Your task to perform on an android device: Go to accessibility settings Image 0: 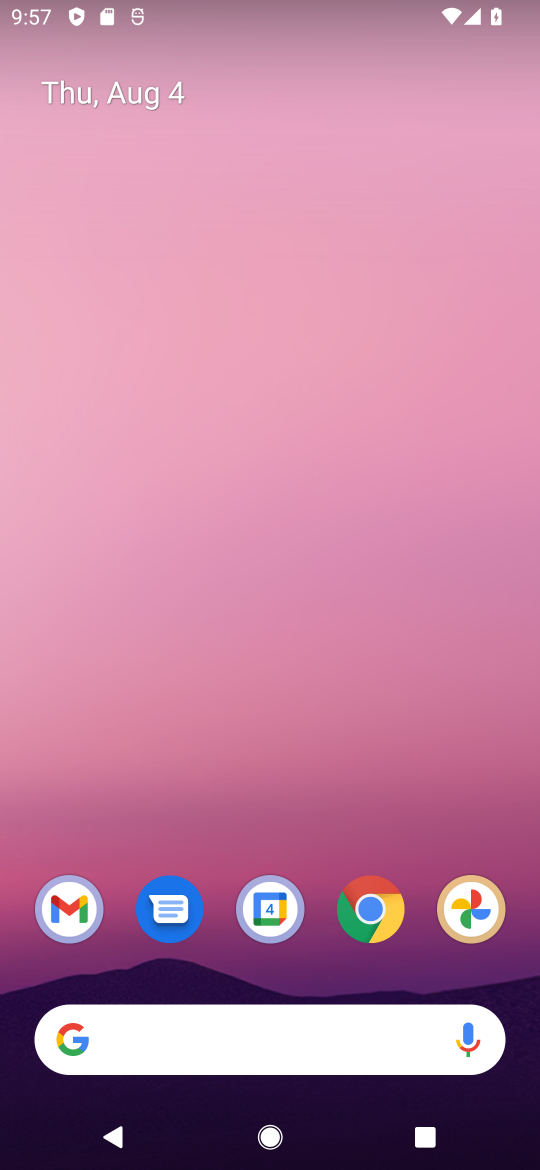
Step 0: drag from (315, 839) to (210, 7)
Your task to perform on an android device: Go to accessibility settings Image 1: 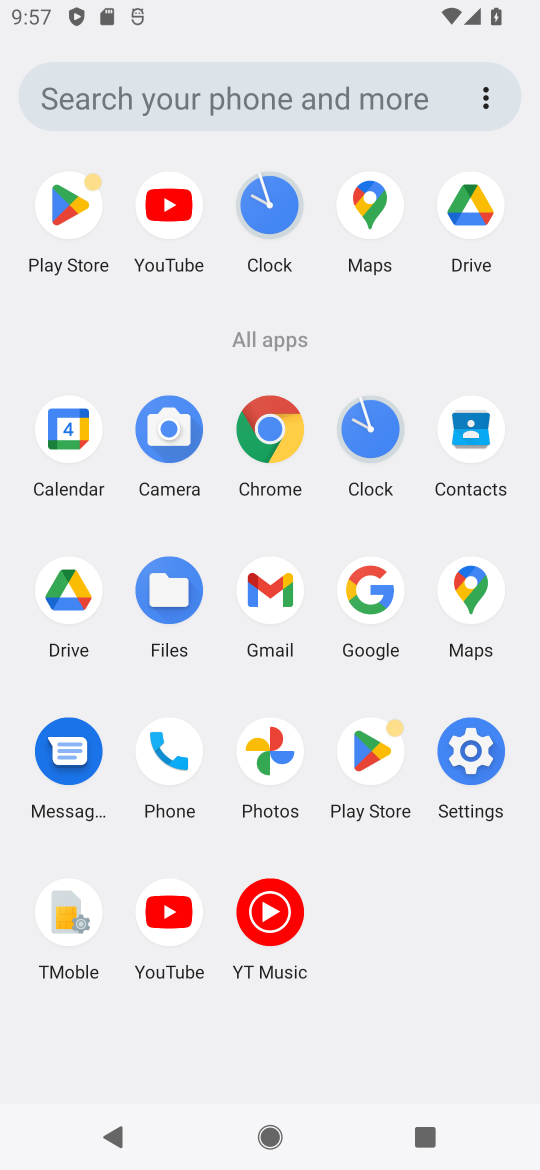
Step 1: click (470, 763)
Your task to perform on an android device: Go to accessibility settings Image 2: 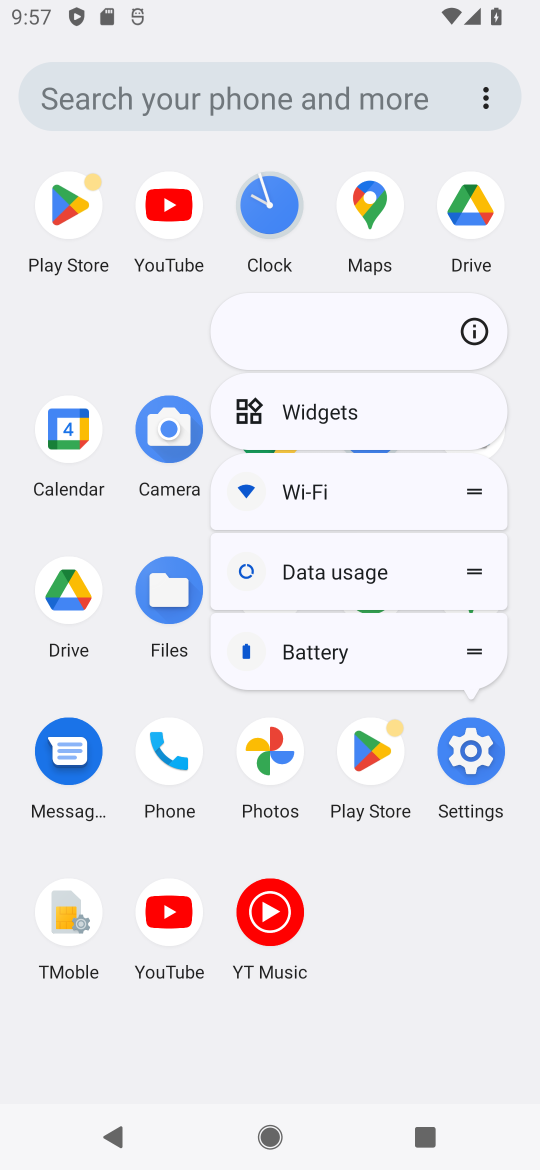
Step 2: click (470, 763)
Your task to perform on an android device: Go to accessibility settings Image 3: 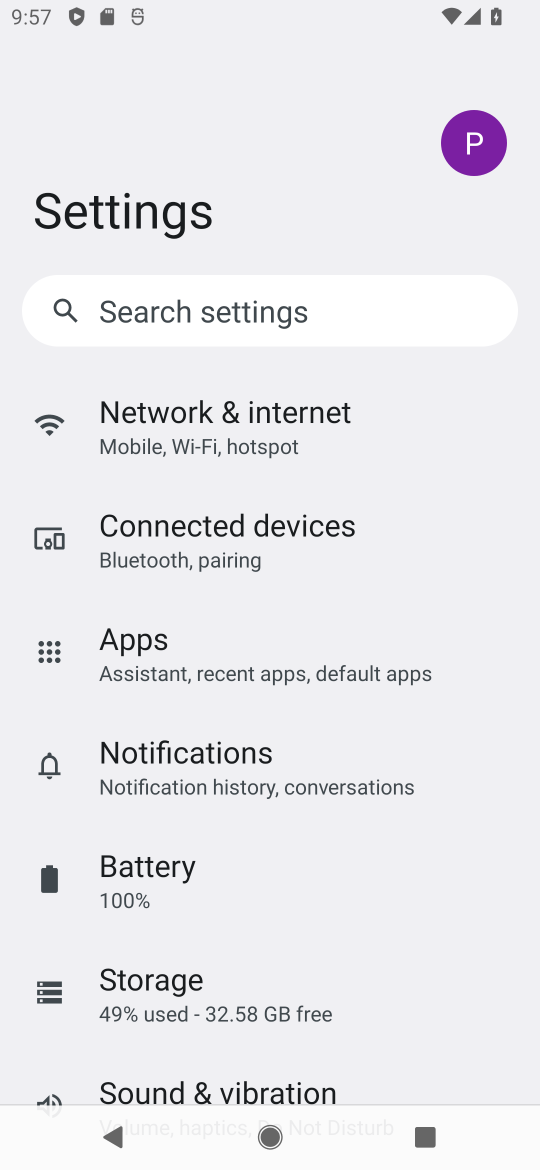
Step 3: drag from (405, 1059) to (418, 366)
Your task to perform on an android device: Go to accessibility settings Image 4: 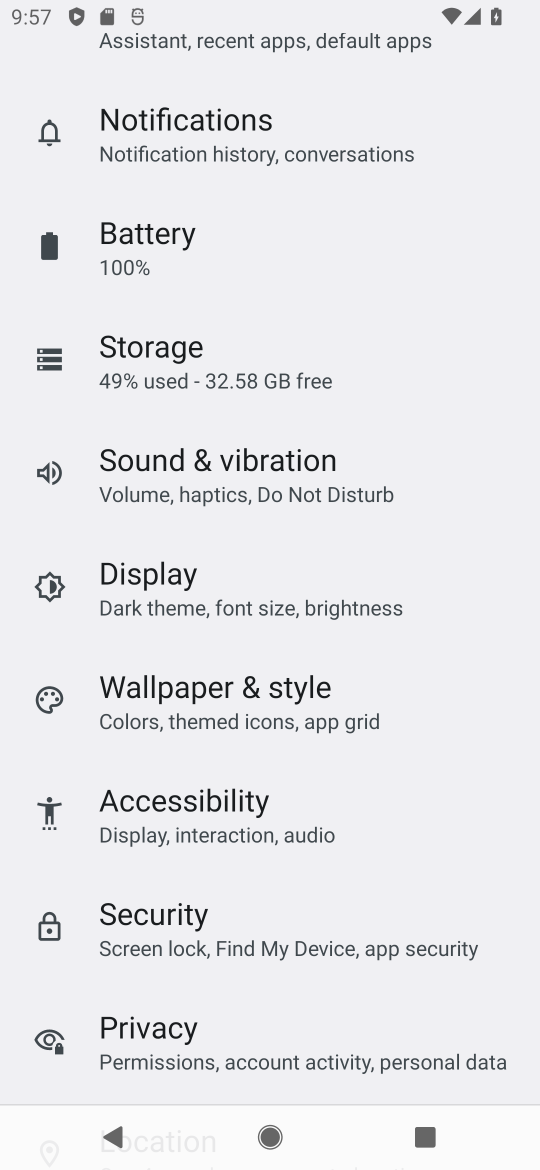
Step 4: click (243, 811)
Your task to perform on an android device: Go to accessibility settings Image 5: 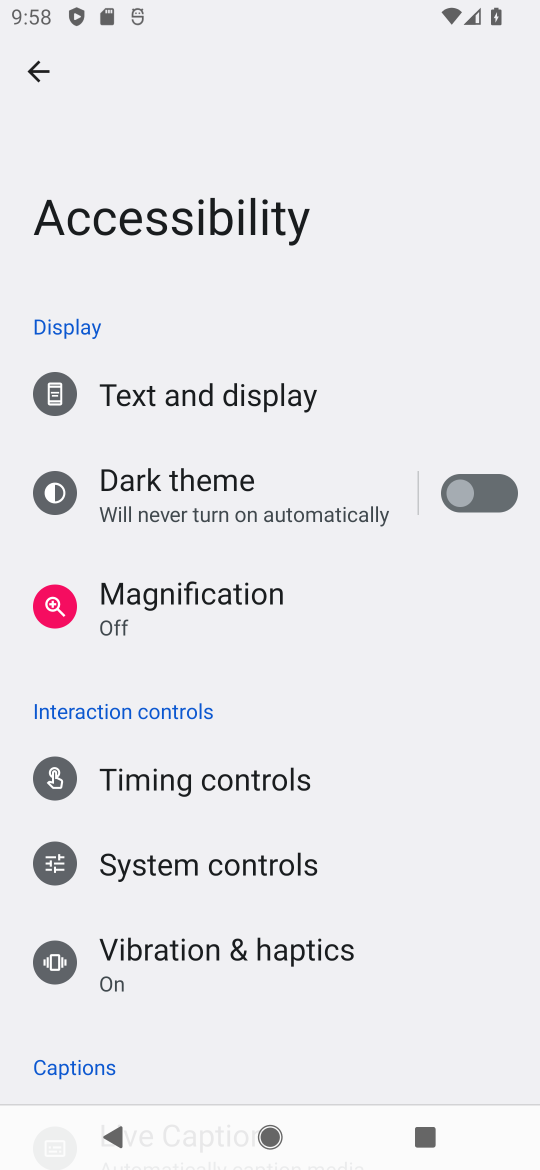
Step 5: task complete